Your task to perform on an android device: turn smart compose on in the gmail app Image 0: 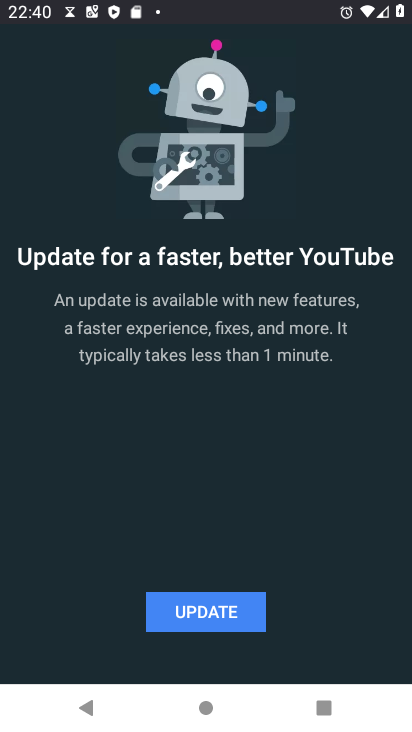
Step 0: press home button
Your task to perform on an android device: turn smart compose on in the gmail app Image 1: 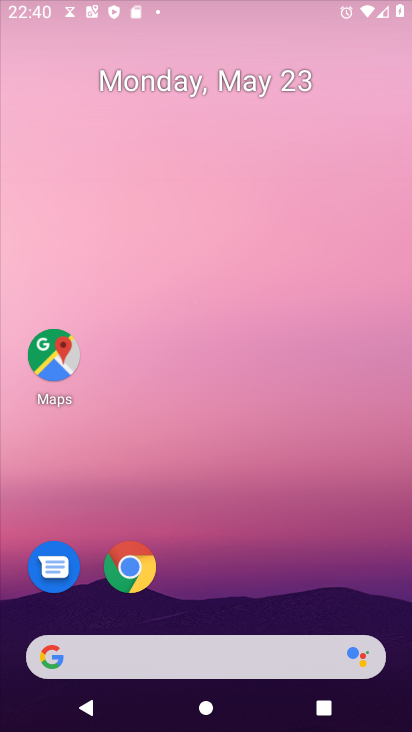
Step 1: drag from (248, 551) to (286, 105)
Your task to perform on an android device: turn smart compose on in the gmail app Image 2: 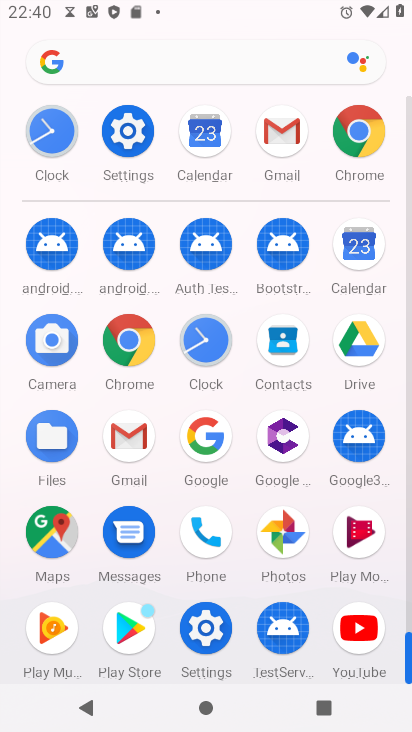
Step 2: click (303, 120)
Your task to perform on an android device: turn smart compose on in the gmail app Image 3: 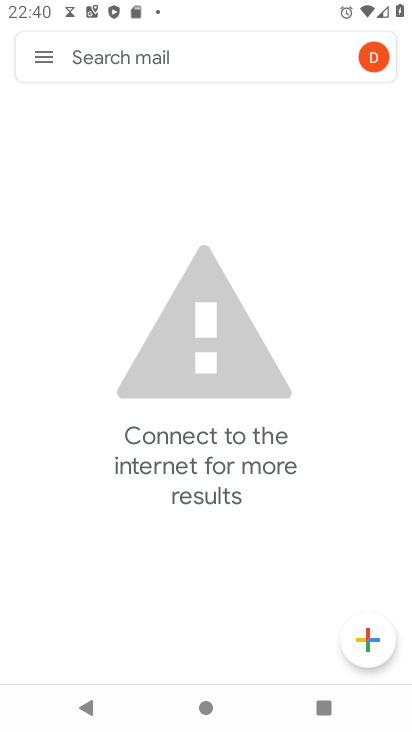
Step 3: click (46, 57)
Your task to perform on an android device: turn smart compose on in the gmail app Image 4: 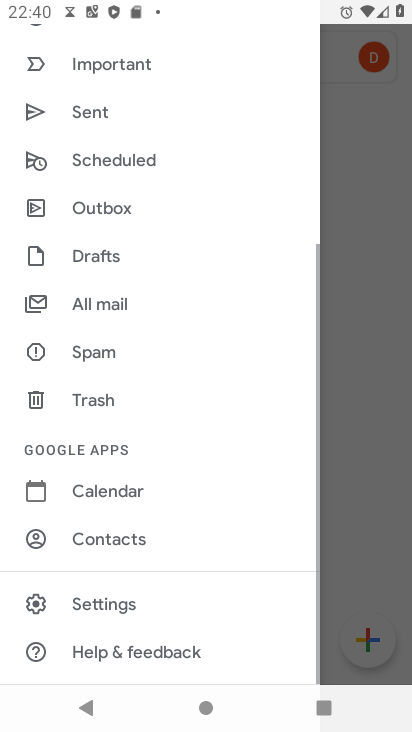
Step 4: click (182, 588)
Your task to perform on an android device: turn smart compose on in the gmail app Image 5: 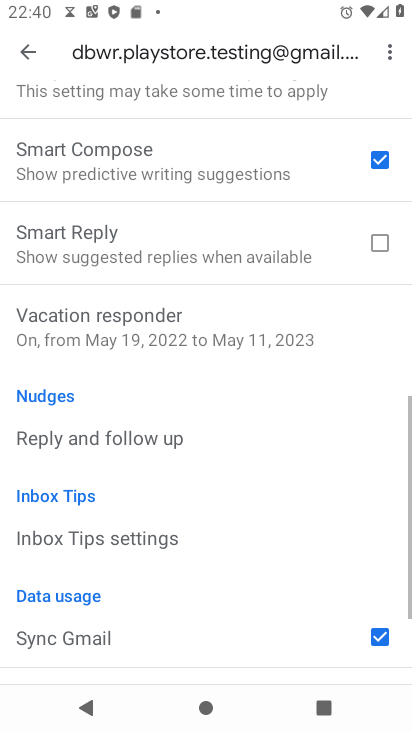
Step 5: task complete